Your task to perform on an android device: remove spam from my inbox in the gmail app Image 0: 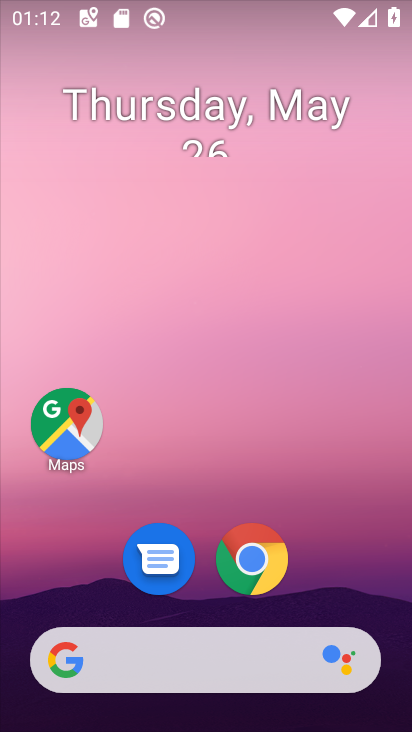
Step 0: press home button
Your task to perform on an android device: remove spam from my inbox in the gmail app Image 1: 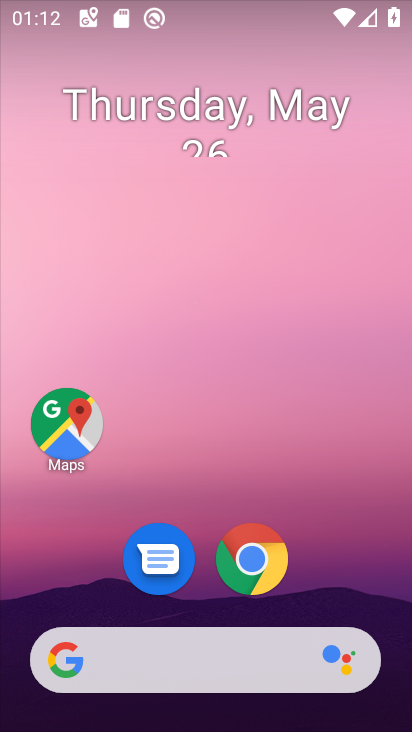
Step 1: drag from (381, 545) to (384, 163)
Your task to perform on an android device: remove spam from my inbox in the gmail app Image 2: 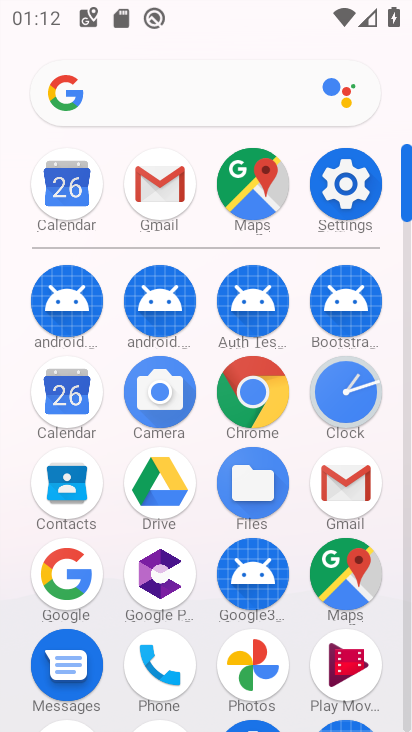
Step 2: click (148, 170)
Your task to perform on an android device: remove spam from my inbox in the gmail app Image 3: 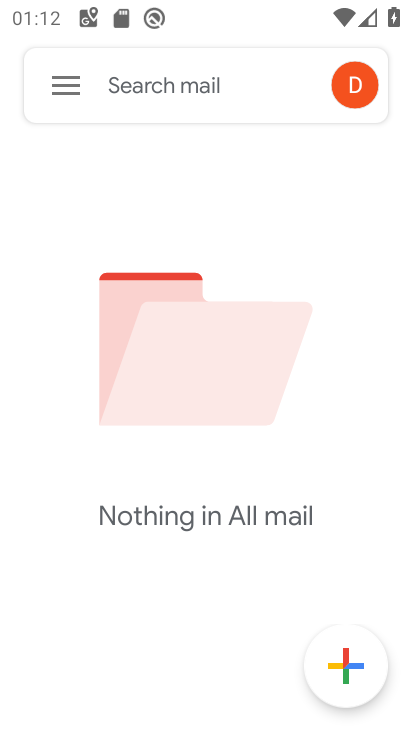
Step 3: click (59, 88)
Your task to perform on an android device: remove spam from my inbox in the gmail app Image 4: 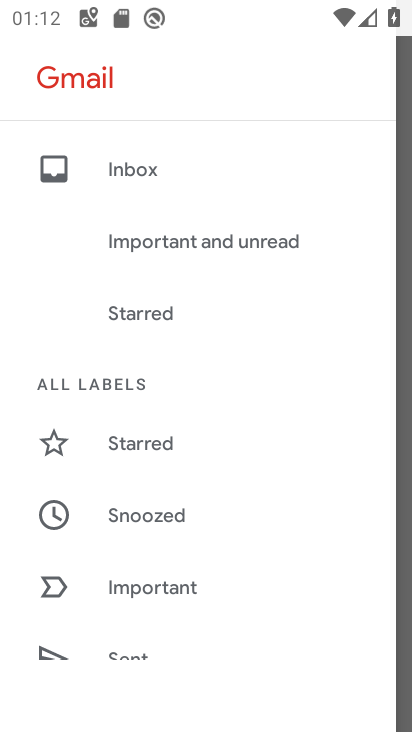
Step 4: drag from (299, 652) to (234, 266)
Your task to perform on an android device: remove spam from my inbox in the gmail app Image 5: 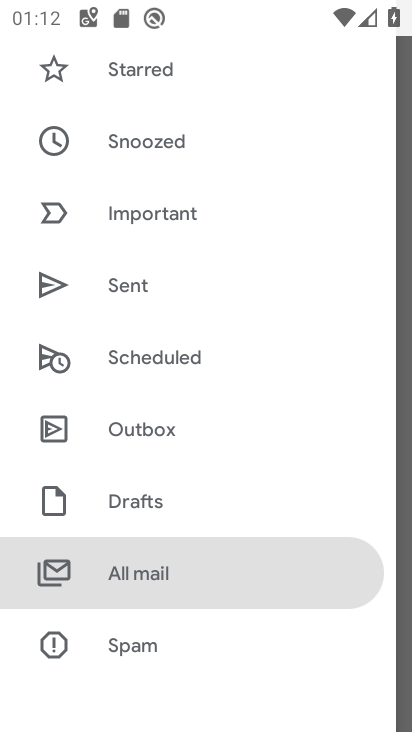
Step 5: click (152, 644)
Your task to perform on an android device: remove spam from my inbox in the gmail app Image 6: 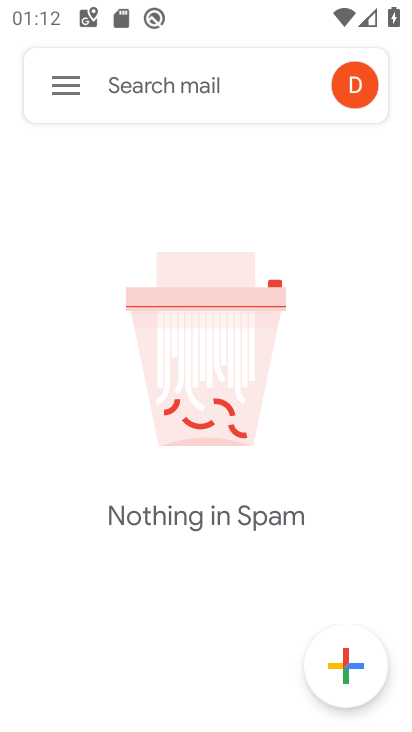
Step 6: task complete